Your task to perform on an android device: open chrome privacy settings Image 0: 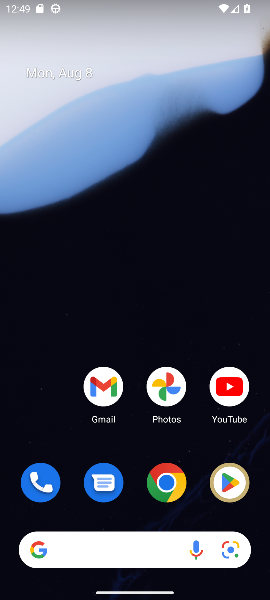
Step 0: drag from (129, 539) to (156, 167)
Your task to perform on an android device: open chrome privacy settings Image 1: 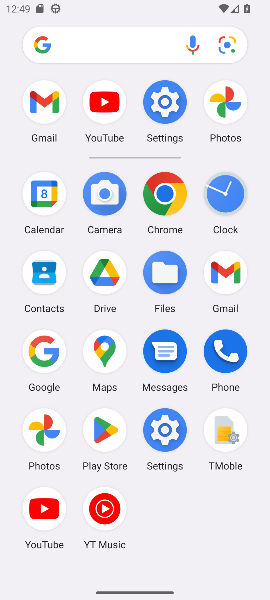
Step 1: click (174, 199)
Your task to perform on an android device: open chrome privacy settings Image 2: 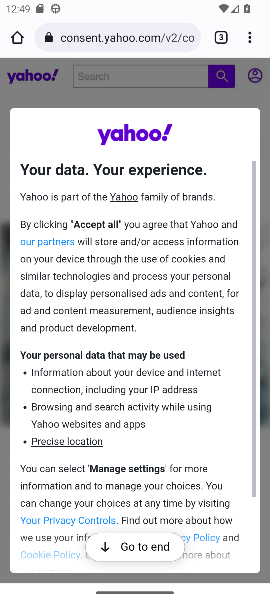
Step 2: click (247, 31)
Your task to perform on an android device: open chrome privacy settings Image 3: 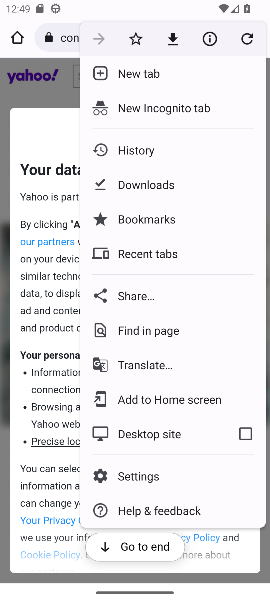
Step 3: click (133, 479)
Your task to perform on an android device: open chrome privacy settings Image 4: 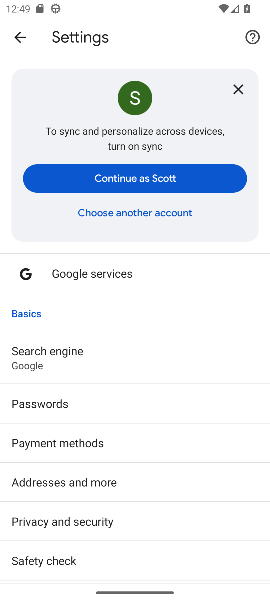
Step 4: drag from (127, 546) to (132, 275)
Your task to perform on an android device: open chrome privacy settings Image 5: 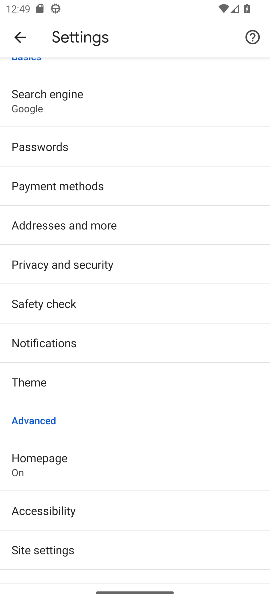
Step 5: click (95, 263)
Your task to perform on an android device: open chrome privacy settings Image 6: 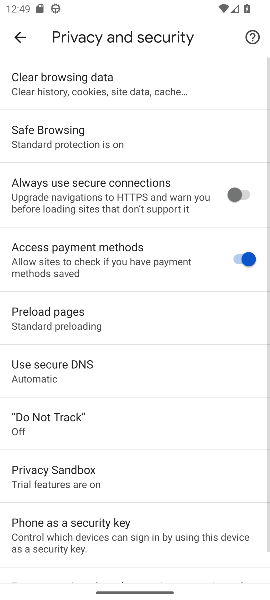
Step 6: task complete